Your task to perform on an android device: add a contact Image 0: 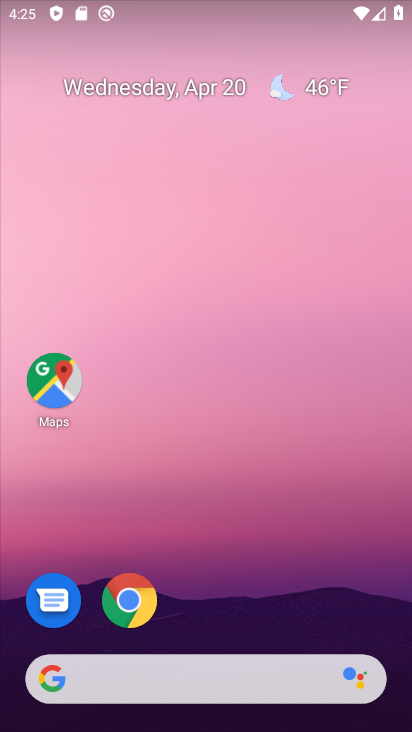
Step 0: drag from (210, 479) to (237, 34)
Your task to perform on an android device: add a contact Image 1: 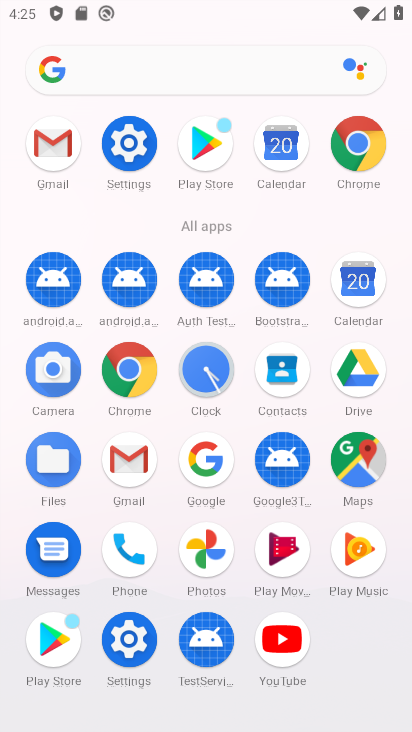
Step 1: click (282, 361)
Your task to perform on an android device: add a contact Image 2: 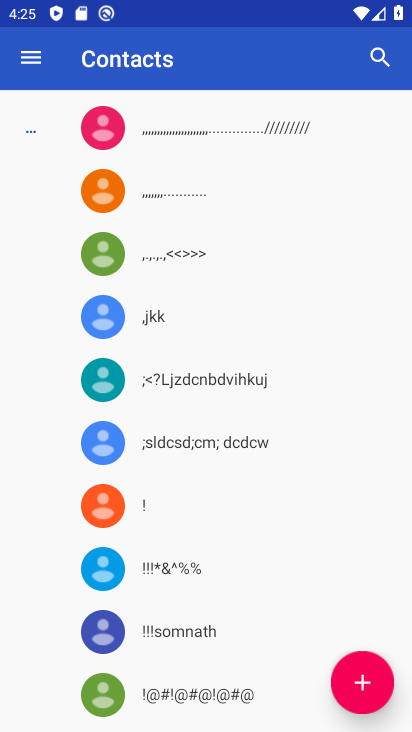
Step 2: click (362, 681)
Your task to perform on an android device: add a contact Image 3: 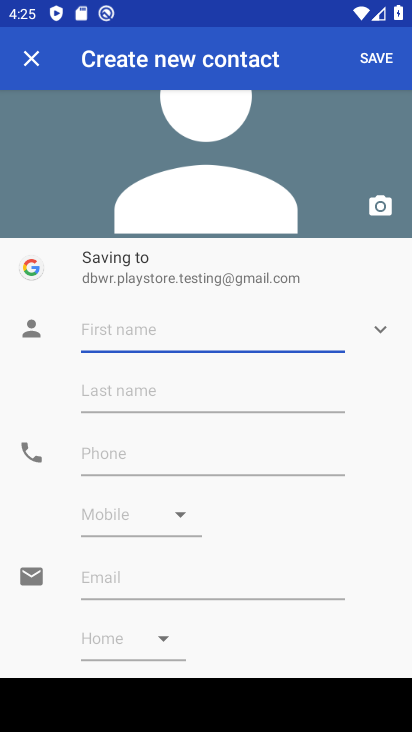
Step 3: type "jgffgds"
Your task to perform on an android device: add a contact Image 4: 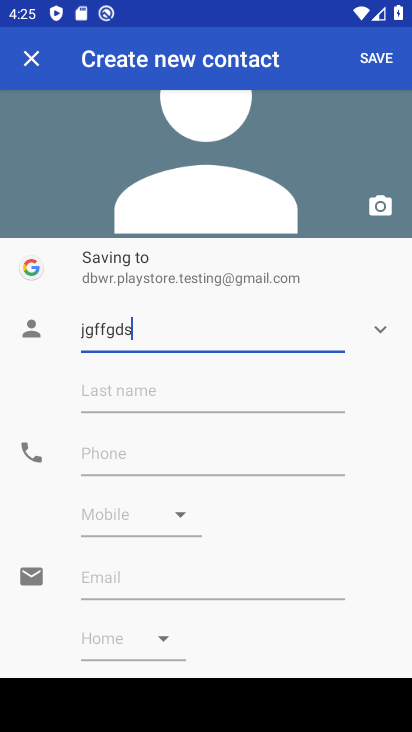
Step 4: click (381, 53)
Your task to perform on an android device: add a contact Image 5: 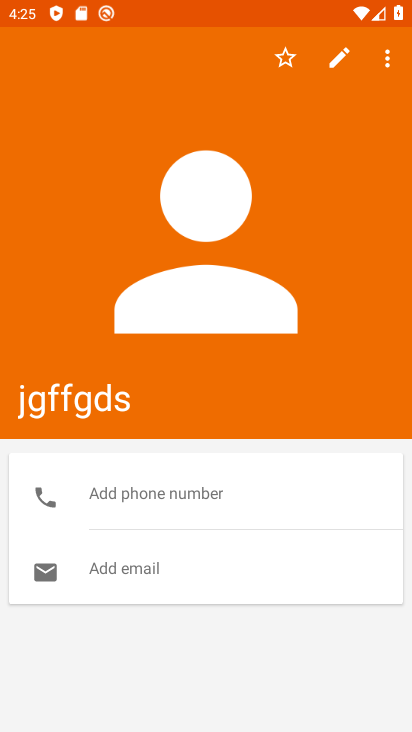
Step 5: task complete